Your task to perform on an android device: Open Maps and search for coffee Image 0: 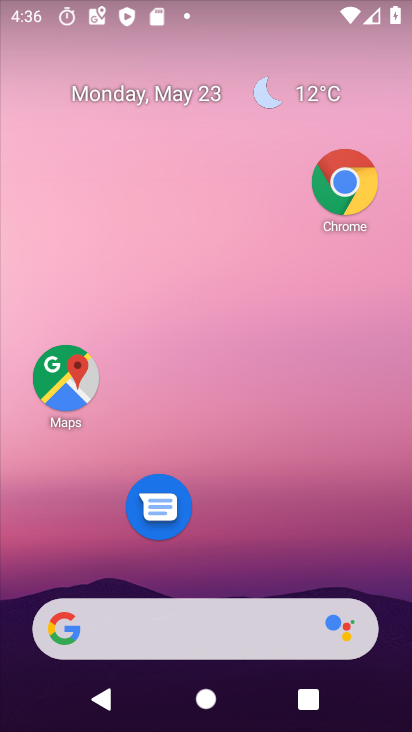
Step 0: click (81, 384)
Your task to perform on an android device: Open Maps and search for coffee Image 1: 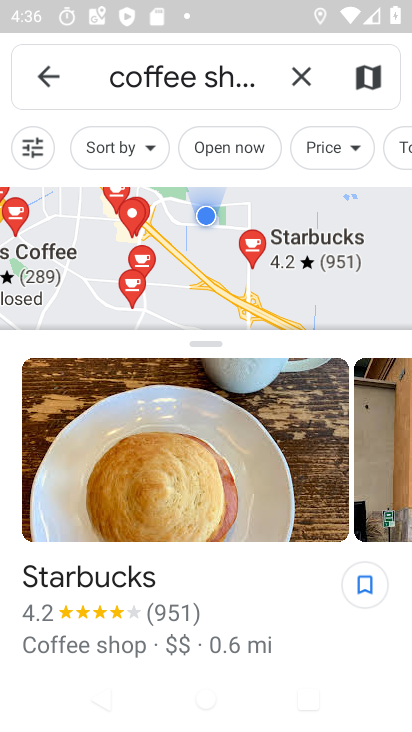
Step 1: task complete